Your task to perform on an android device: Show me productivity apps on the Play Store Image 0: 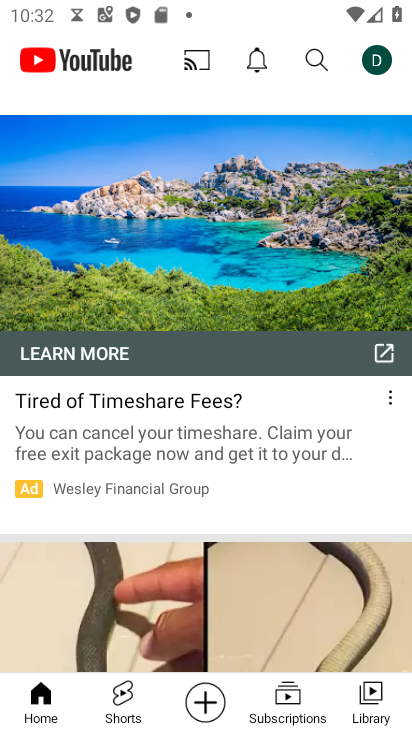
Step 0: press home button
Your task to perform on an android device: Show me productivity apps on the Play Store Image 1: 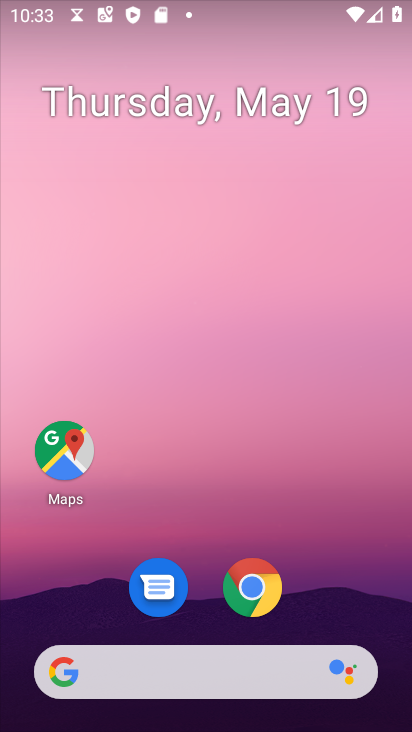
Step 1: drag from (163, 660) to (222, 342)
Your task to perform on an android device: Show me productivity apps on the Play Store Image 2: 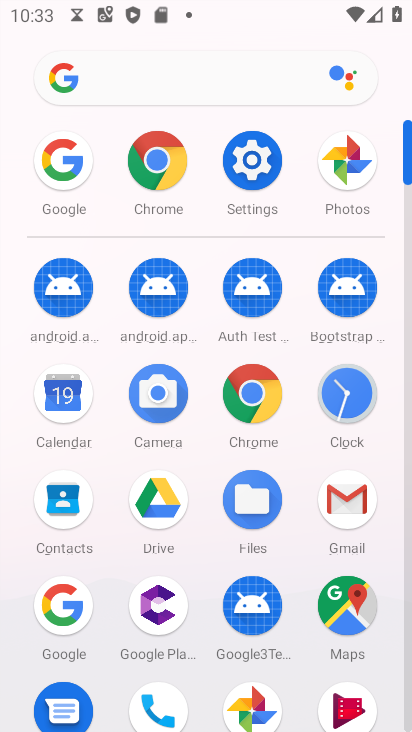
Step 2: drag from (160, 616) to (213, 200)
Your task to perform on an android device: Show me productivity apps on the Play Store Image 3: 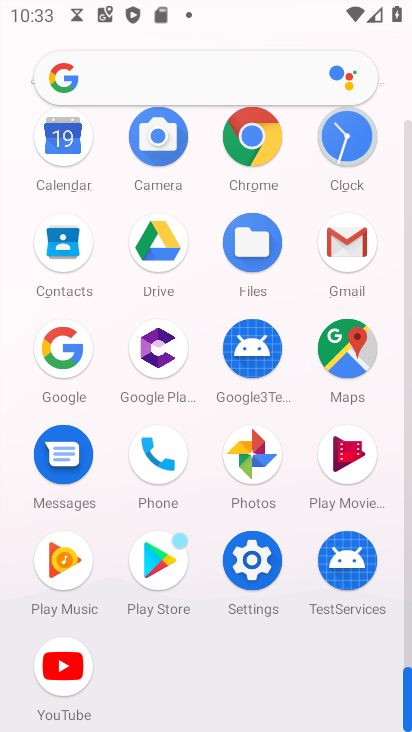
Step 3: click (163, 588)
Your task to perform on an android device: Show me productivity apps on the Play Store Image 4: 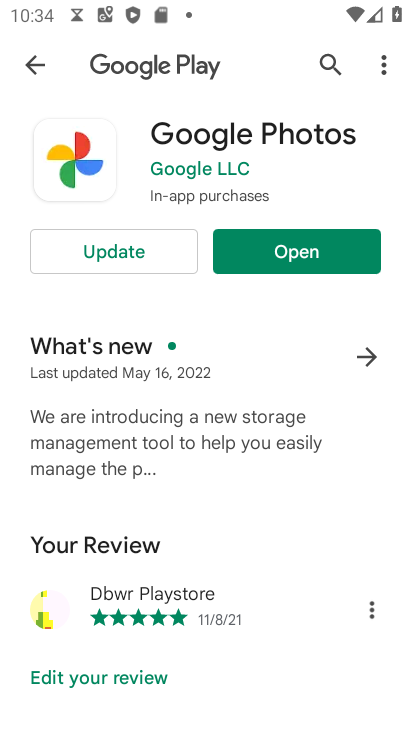
Step 4: press home button
Your task to perform on an android device: Show me productivity apps on the Play Store Image 5: 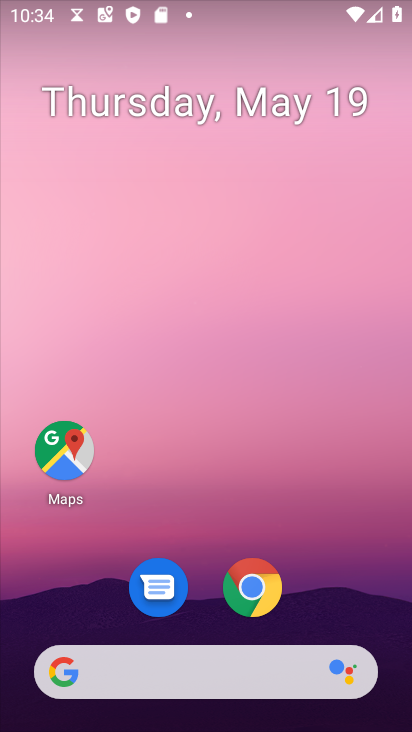
Step 5: drag from (190, 711) to (155, 106)
Your task to perform on an android device: Show me productivity apps on the Play Store Image 6: 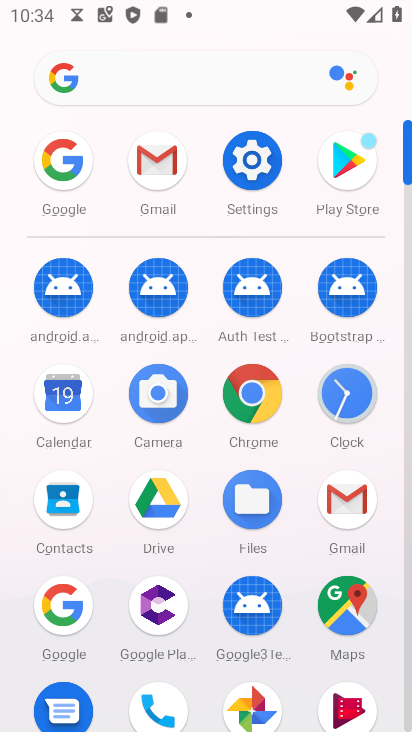
Step 6: click (375, 163)
Your task to perform on an android device: Show me productivity apps on the Play Store Image 7: 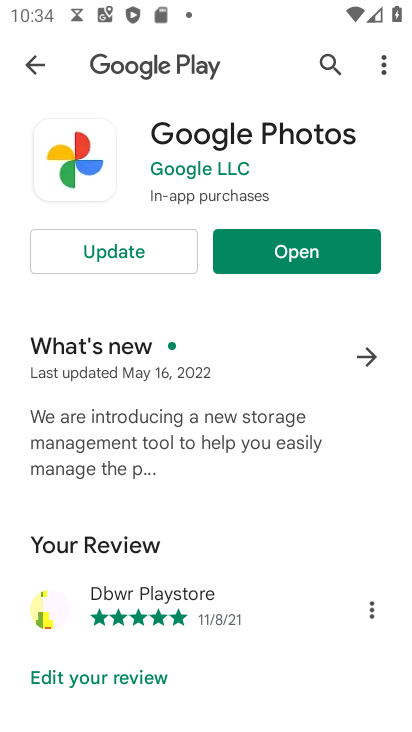
Step 7: click (41, 63)
Your task to perform on an android device: Show me productivity apps on the Play Store Image 8: 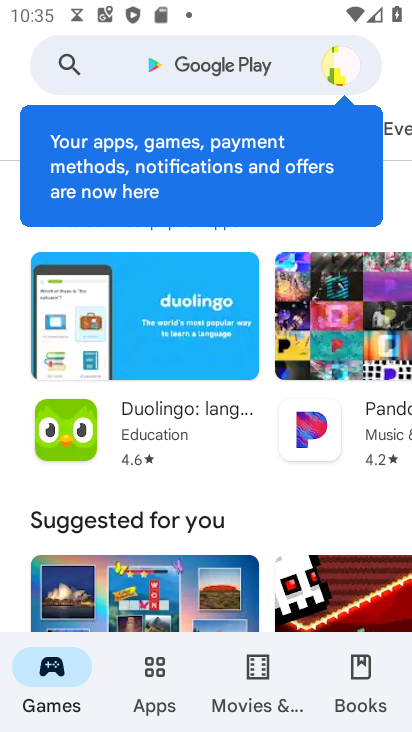
Step 8: click (149, 681)
Your task to perform on an android device: Show me productivity apps on the Play Store Image 9: 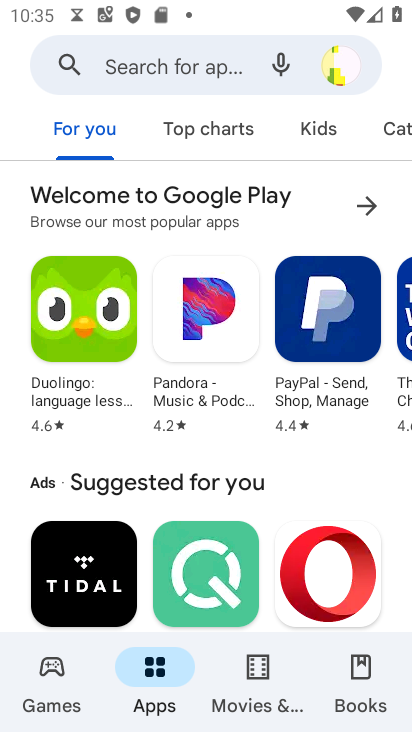
Step 9: click (395, 120)
Your task to perform on an android device: Show me productivity apps on the Play Store Image 10: 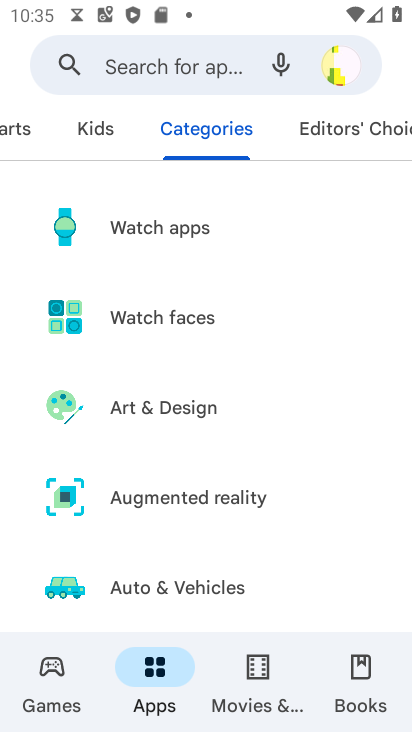
Step 10: drag from (265, 547) to (195, 1)
Your task to perform on an android device: Show me productivity apps on the Play Store Image 11: 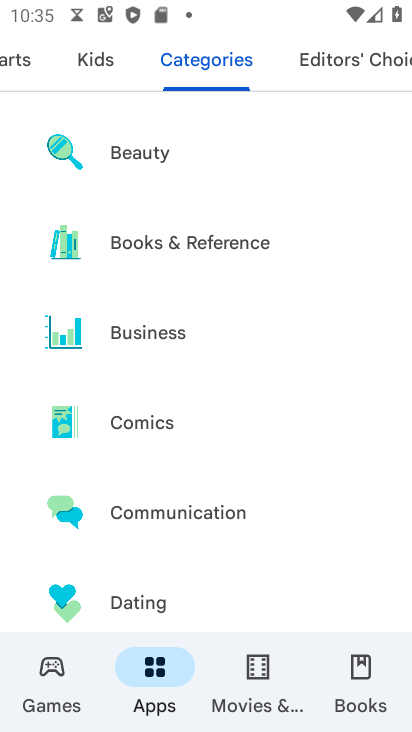
Step 11: drag from (246, 600) to (173, 74)
Your task to perform on an android device: Show me productivity apps on the Play Store Image 12: 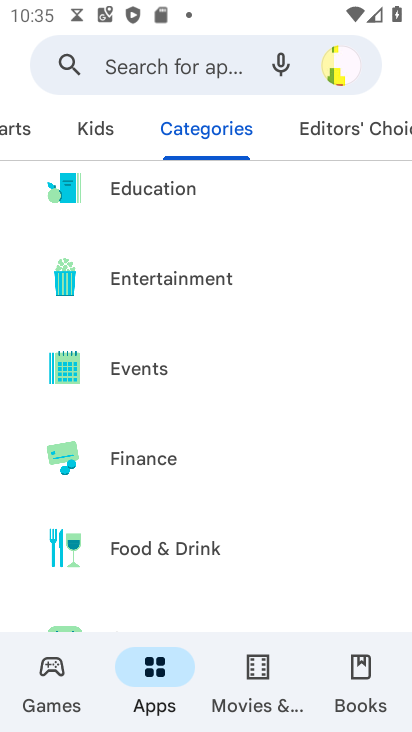
Step 12: drag from (216, 573) to (207, 35)
Your task to perform on an android device: Show me productivity apps on the Play Store Image 13: 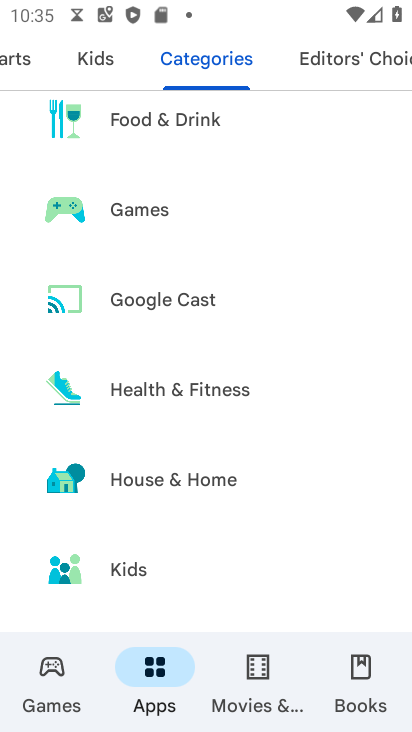
Step 13: drag from (186, 568) to (188, 0)
Your task to perform on an android device: Show me productivity apps on the Play Store Image 14: 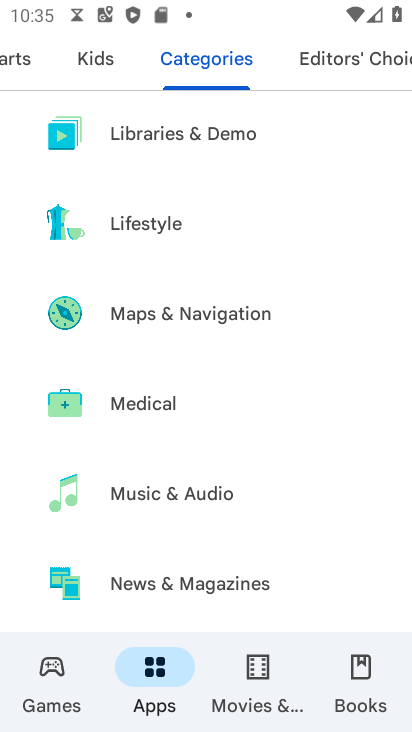
Step 14: drag from (191, 560) to (181, 87)
Your task to perform on an android device: Show me productivity apps on the Play Store Image 15: 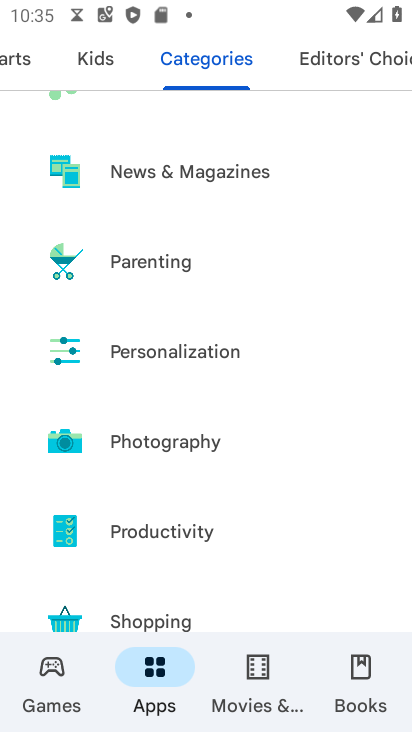
Step 15: click (175, 539)
Your task to perform on an android device: Show me productivity apps on the Play Store Image 16: 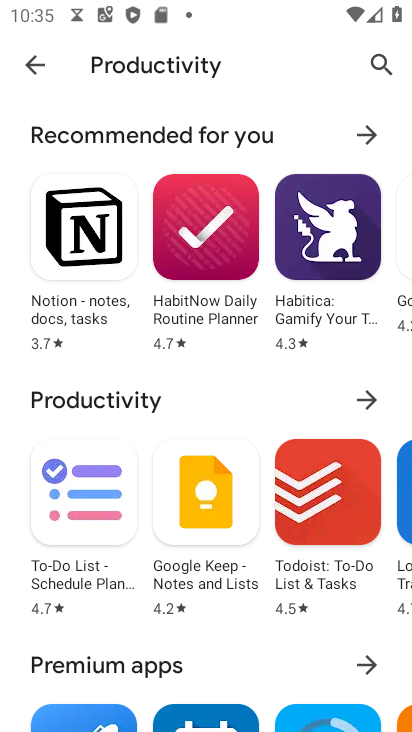
Step 16: task complete